Your task to perform on an android device: Open Google Maps and go to "Timeline" Image 0: 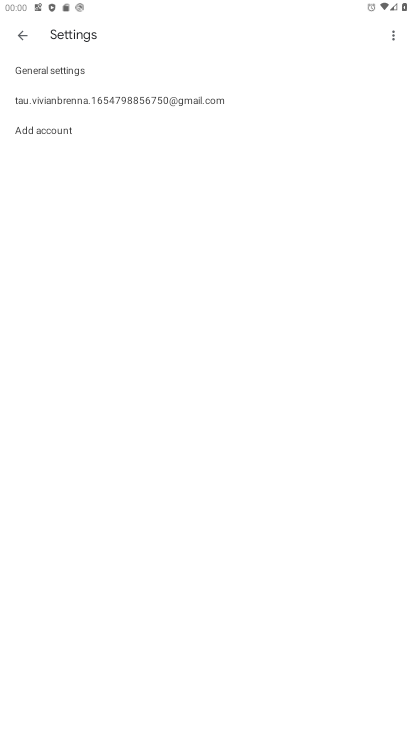
Step 0: press home button
Your task to perform on an android device: Open Google Maps and go to "Timeline" Image 1: 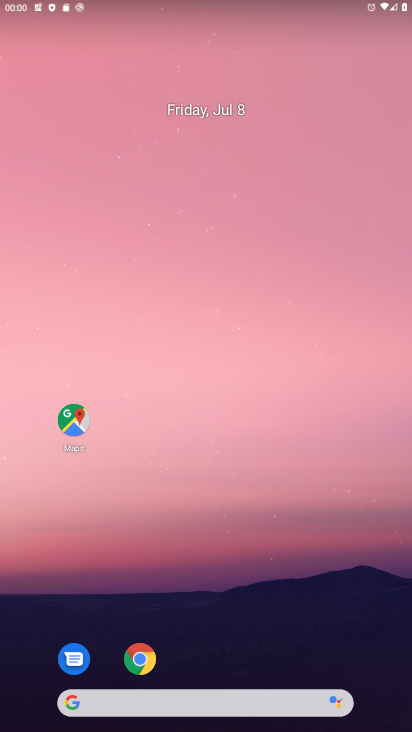
Step 1: click (75, 428)
Your task to perform on an android device: Open Google Maps and go to "Timeline" Image 2: 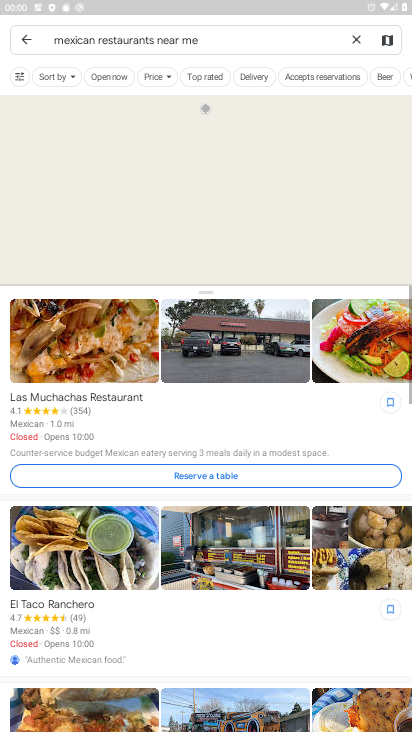
Step 2: click (32, 43)
Your task to perform on an android device: Open Google Maps and go to "Timeline" Image 3: 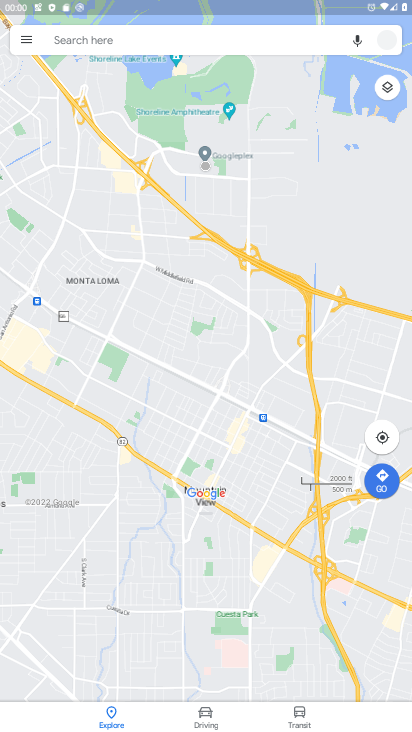
Step 3: click (32, 43)
Your task to perform on an android device: Open Google Maps and go to "Timeline" Image 4: 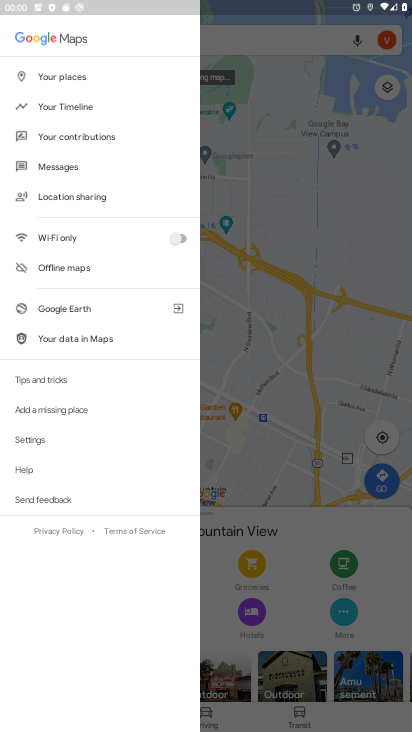
Step 4: click (90, 115)
Your task to perform on an android device: Open Google Maps and go to "Timeline" Image 5: 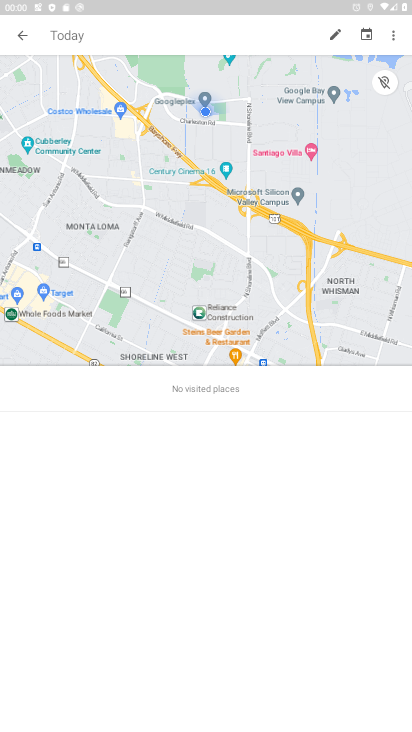
Step 5: task complete